Your task to perform on an android device: uninstall "Paramount+ | Peak Streaming" Image 0: 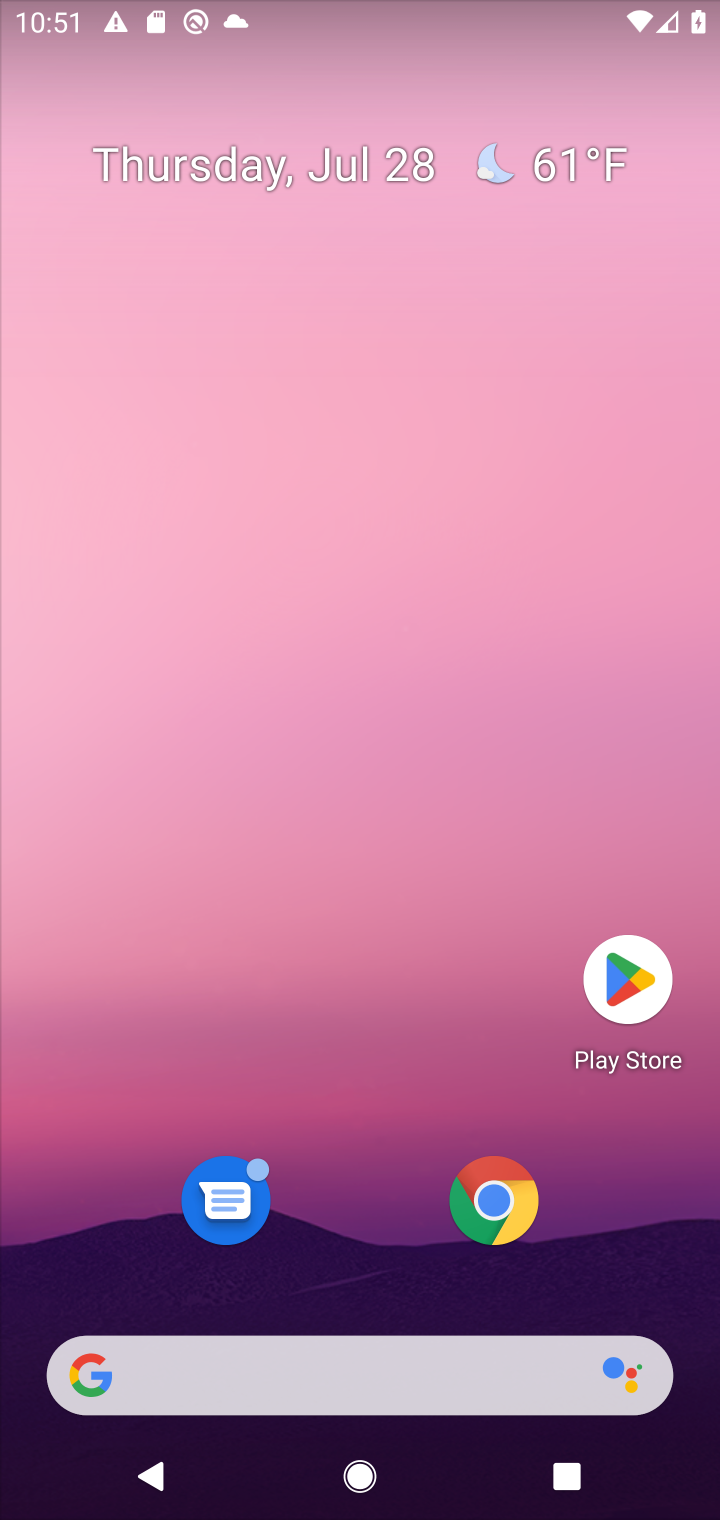
Step 0: press home button
Your task to perform on an android device: uninstall "Paramount+ | Peak Streaming" Image 1: 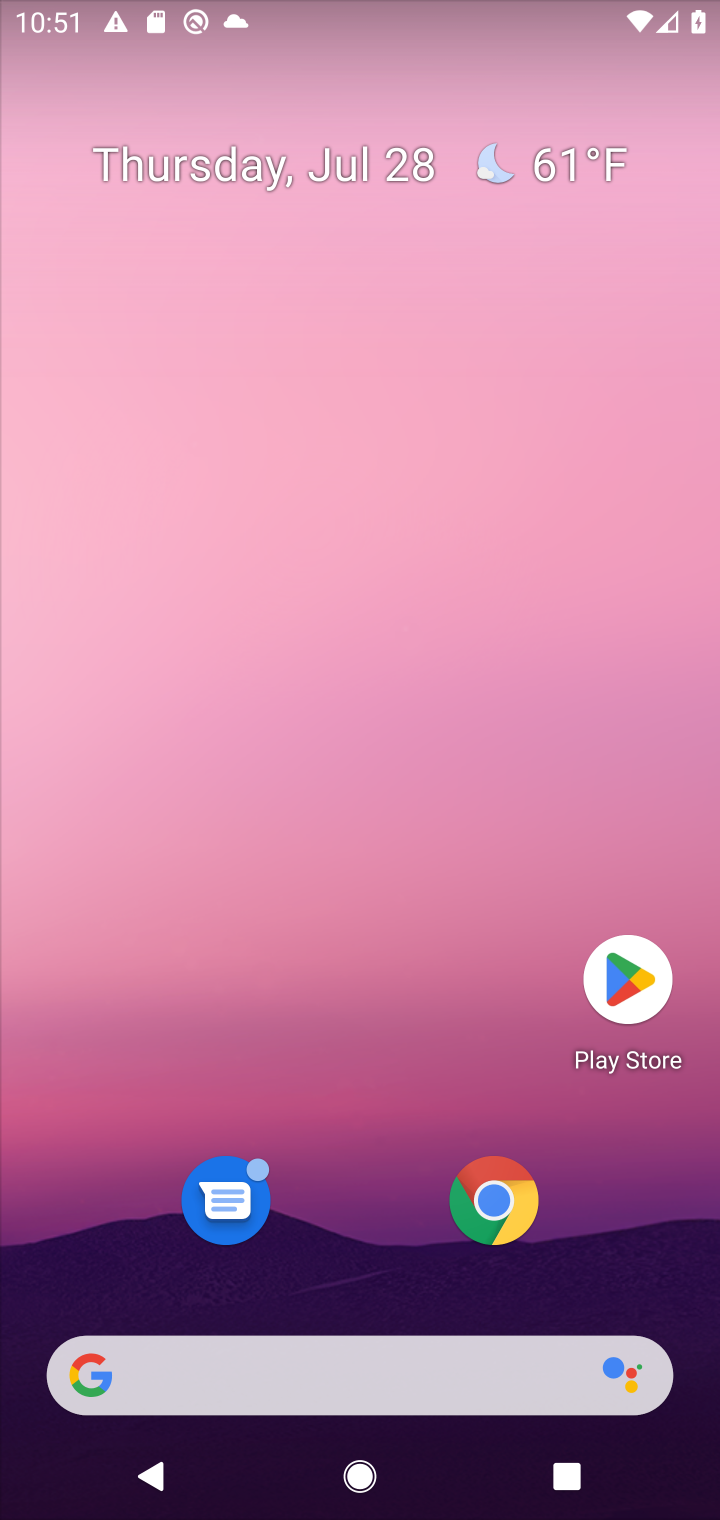
Step 1: click (621, 983)
Your task to perform on an android device: uninstall "Paramount+ | Peak Streaming" Image 2: 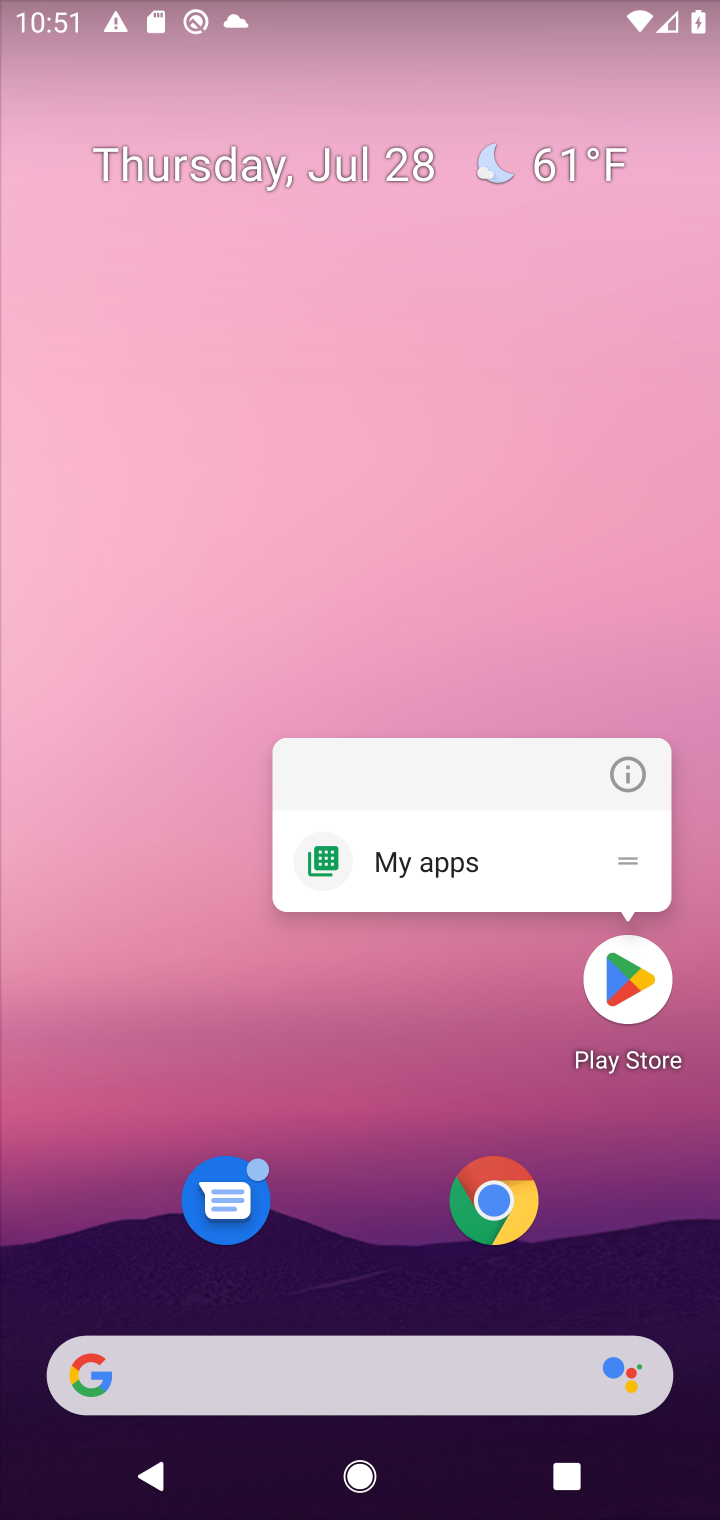
Step 2: click (619, 994)
Your task to perform on an android device: uninstall "Paramount+ | Peak Streaming" Image 3: 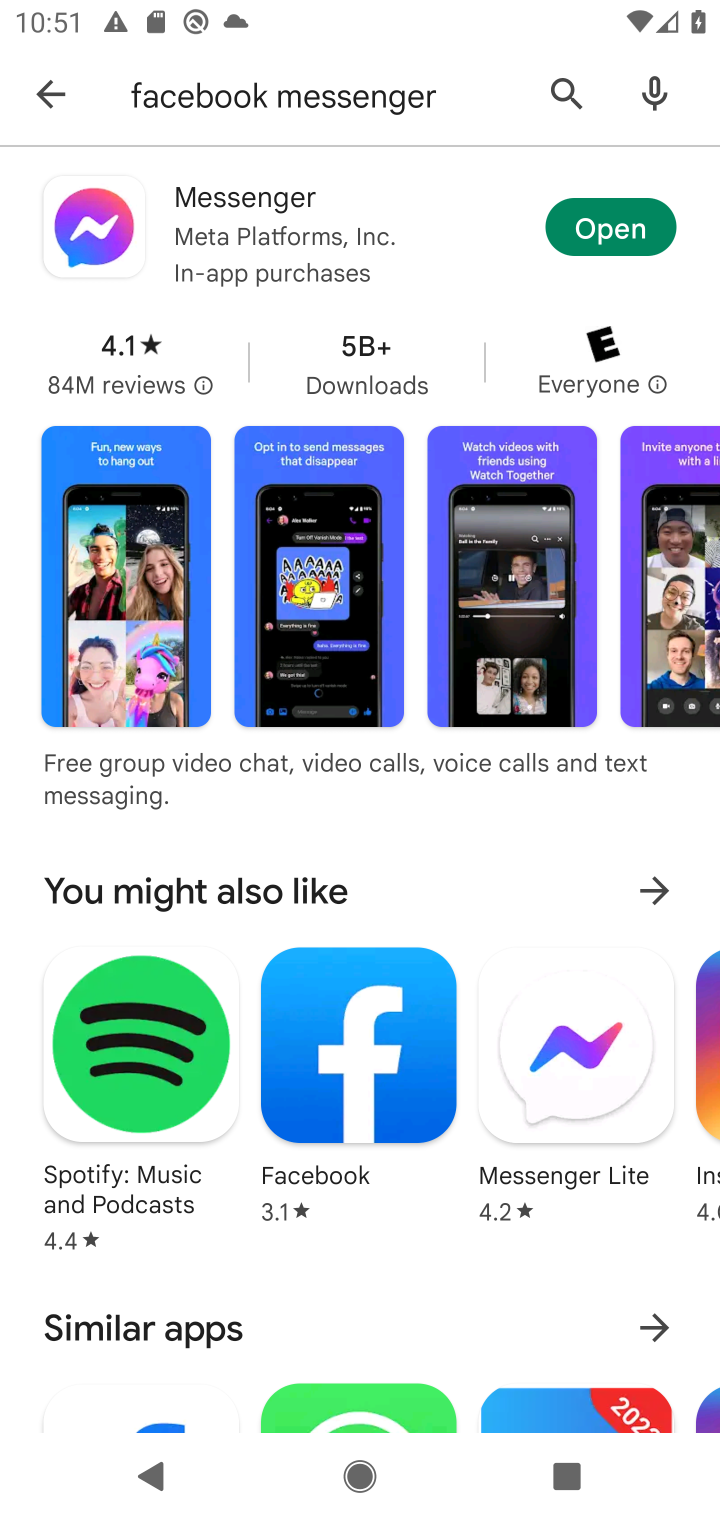
Step 3: click (565, 87)
Your task to perform on an android device: uninstall "Paramount+ | Peak Streaming" Image 4: 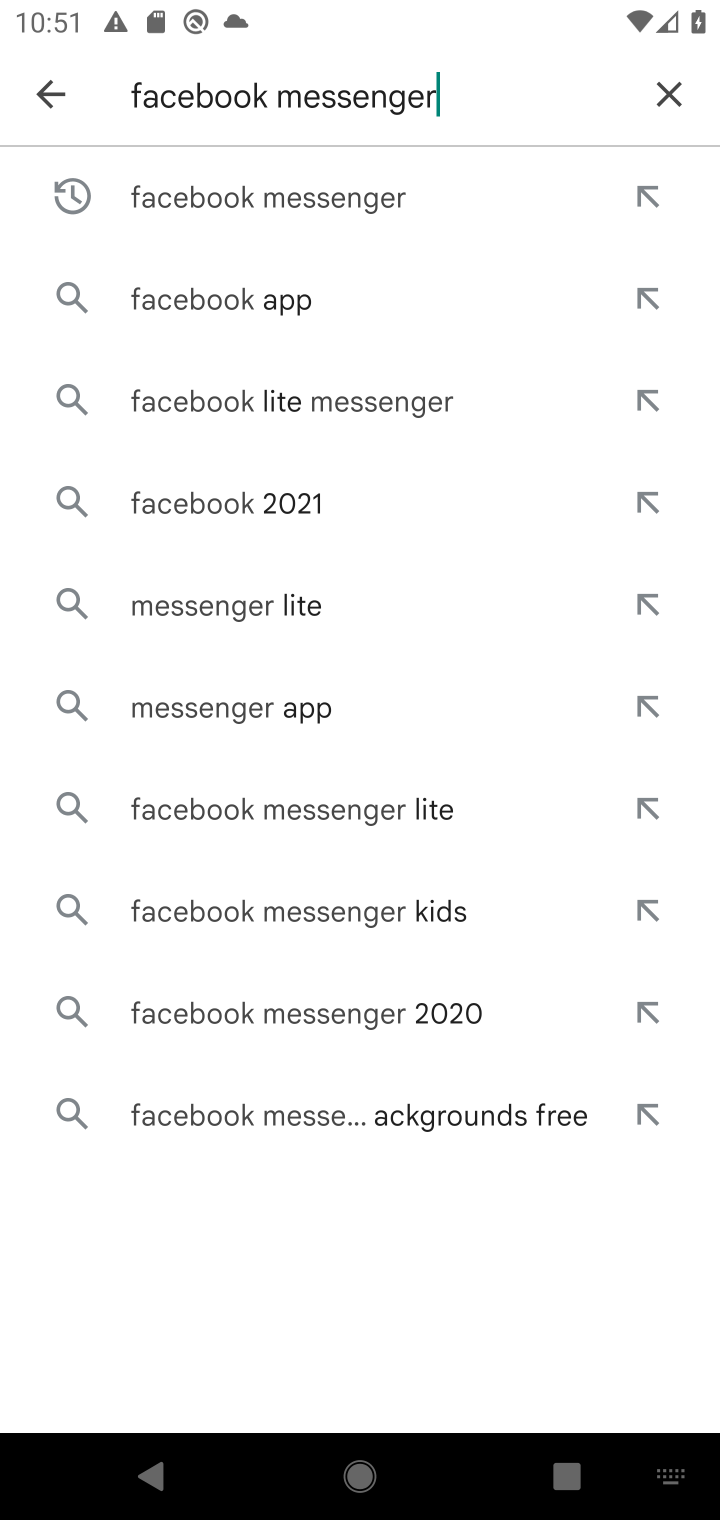
Step 4: click (672, 84)
Your task to perform on an android device: uninstall "Paramount+ | Peak Streaming" Image 5: 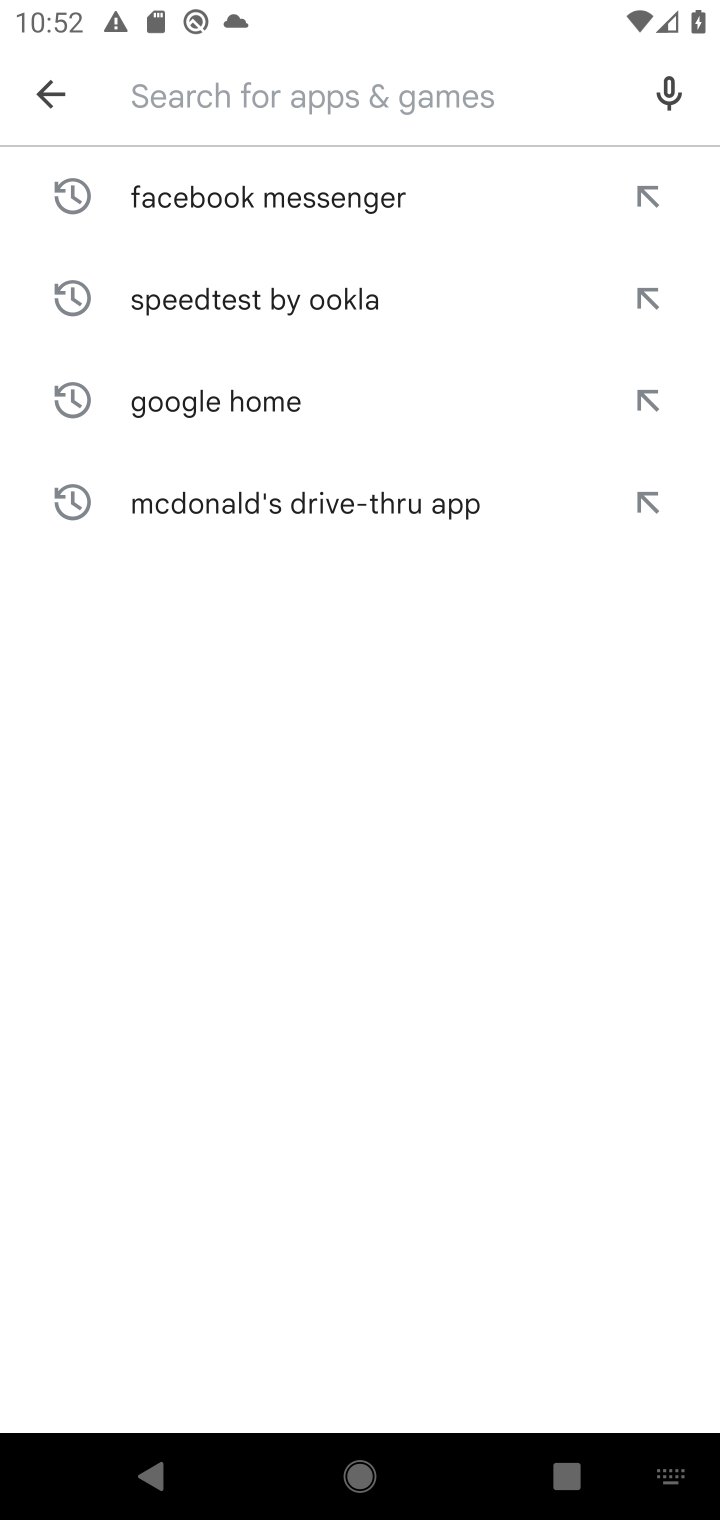
Step 5: type "Paramount+ | Peak Streaming"
Your task to perform on an android device: uninstall "Paramount+ | Peak Streaming" Image 6: 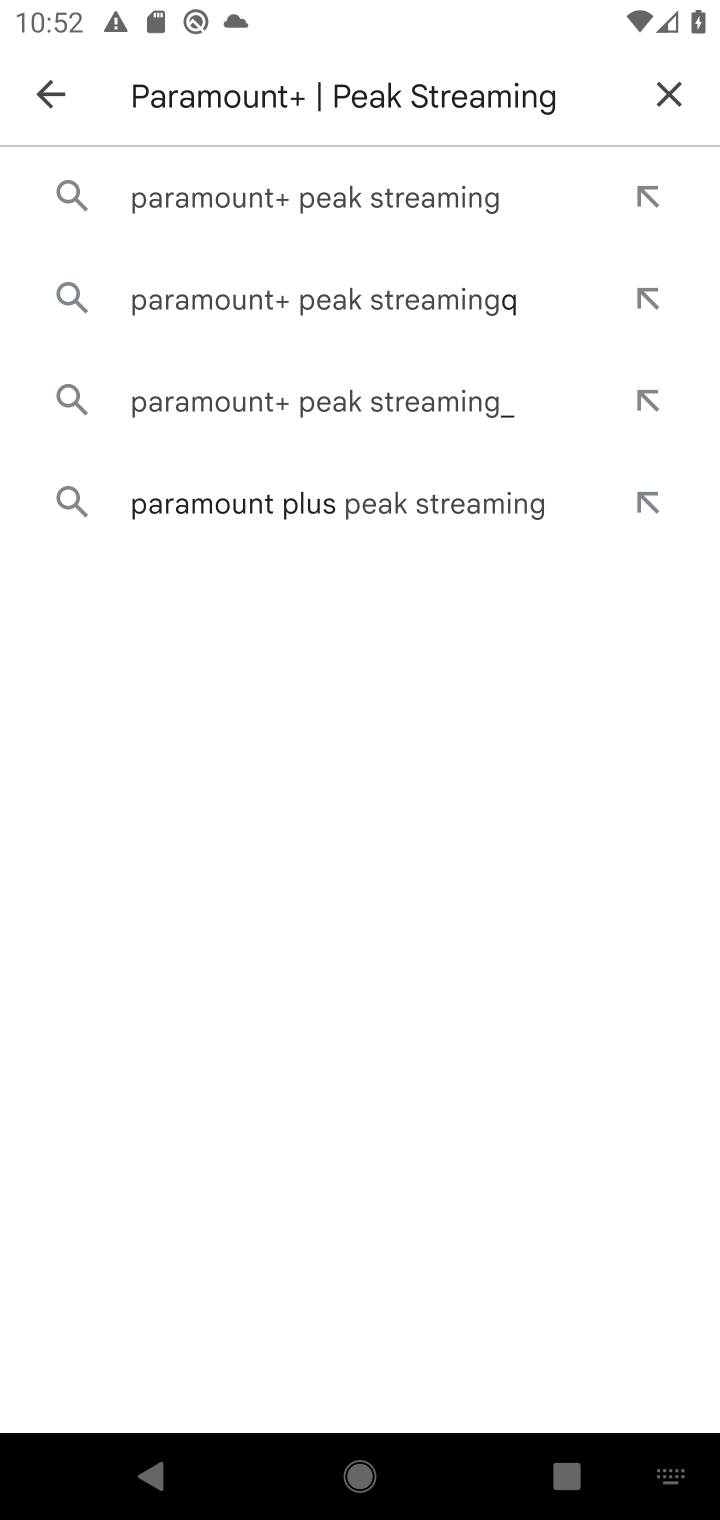
Step 6: click (417, 189)
Your task to perform on an android device: uninstall "Paramount+ | Peak Streaming" Image 7: 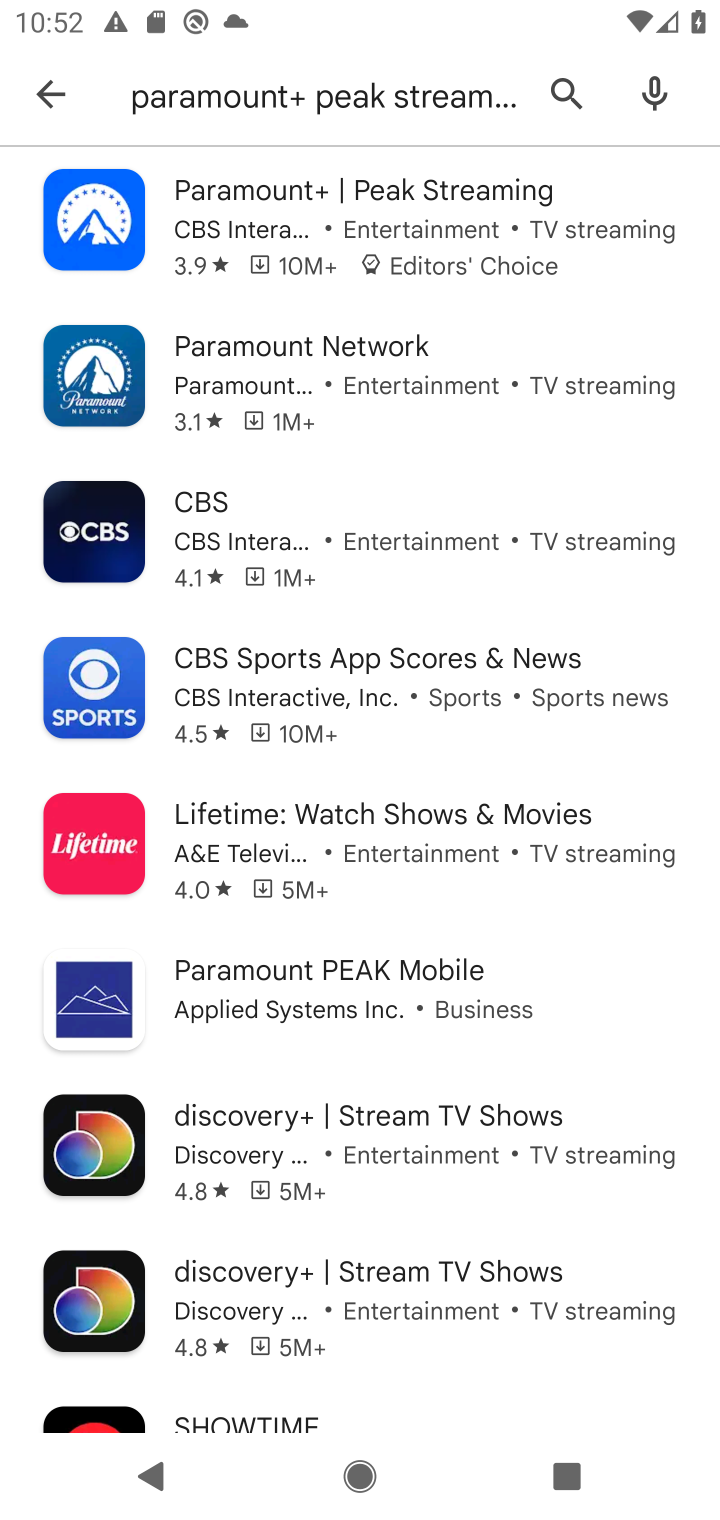
Step 7: click (374, 188)
Your task to perform on an android device: uninstall "Paramount+ | Peak Streaming" Image 8: 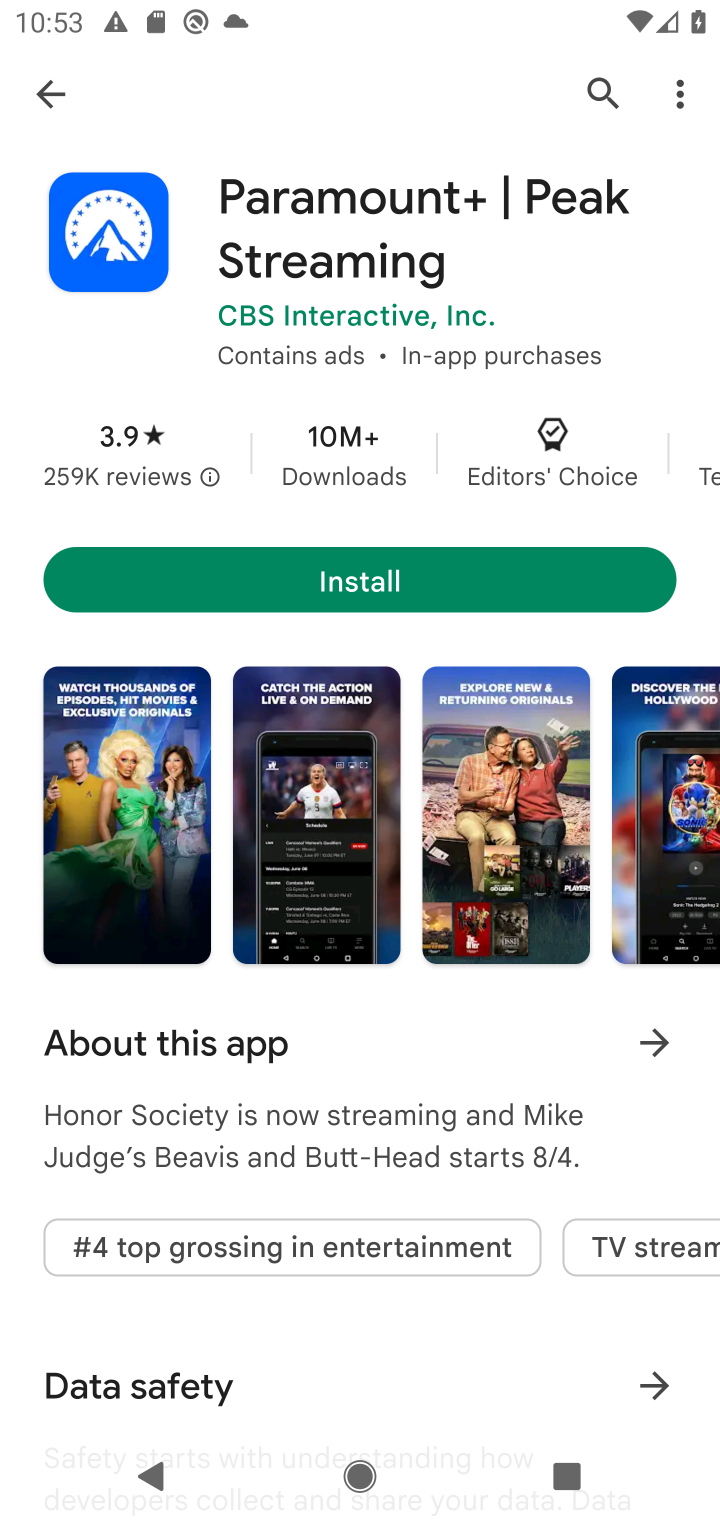
Step 8: task complete